Your task to perform on an android device: open app "Clock" (install if not already installed) Image 0: 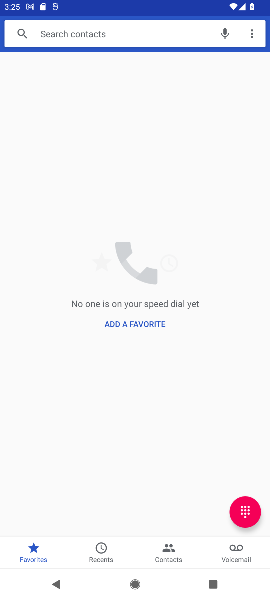
Step 0: press home button
Your task to perform on an android device: open app "Clock" (install if not already installed) Image 1: 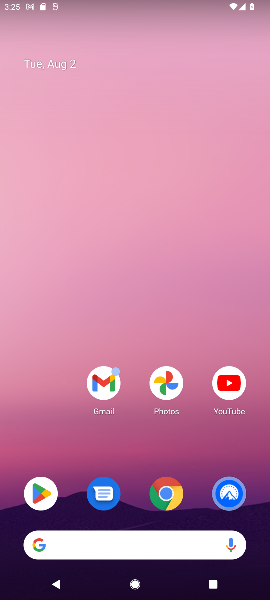
Step 1: click (40, 488)
Your task to perform on an android device: open app "Clock" (install if not already installed) Image 2: 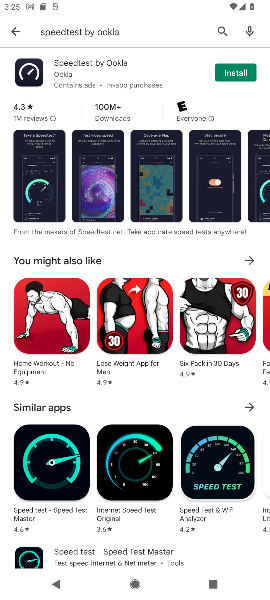
Step 2: click (223, 30)
Your task to perform on an android device: open app "Clock" (install if not already installed) Image 3: 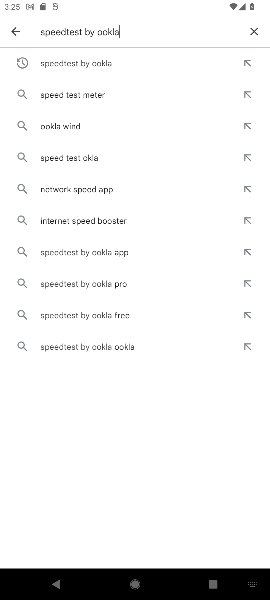
Step 3: click (257, 29)
Your task to perform on an android device: open app "Clock" (install if not already installed) Image 4: 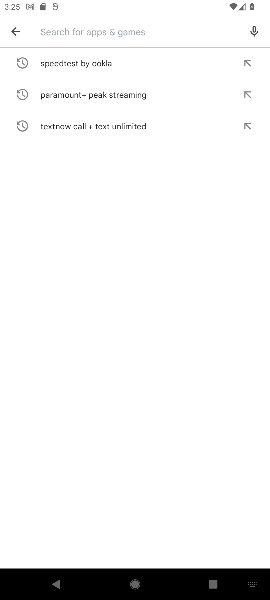
Step 4: type "clock"
Your task to perform on an android device: open app "Clock" (install if not already installed) Image 5: 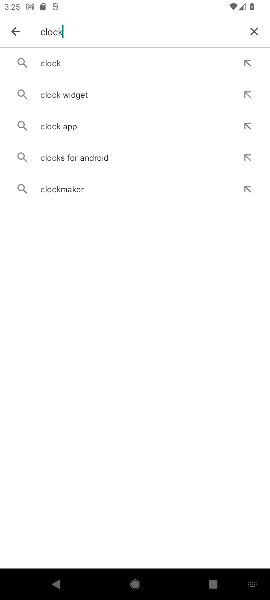
Step 5: click (54, 68)
Your task to perform on an android device: open app "Clock" (install if not already installed) Image 6: 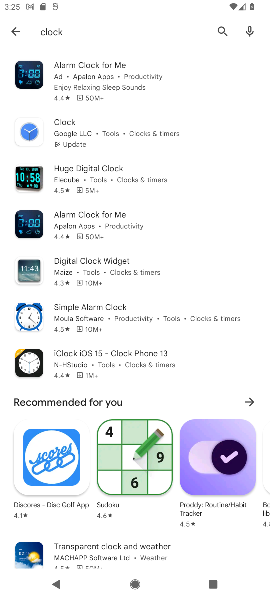
Step 6: click (53, 123)
Your task to perform on an android device: open app "Clock" (install if not already installed) Image 7: 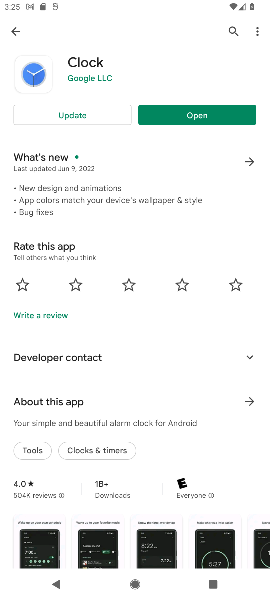
Step 7: click (186, 115)
Your task to perform on an android device: open app "Clock" (install if not already installed) Image 8: 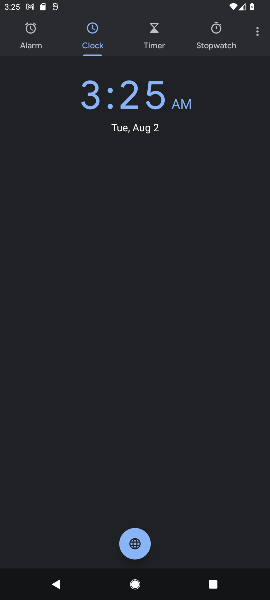
Step 8: task complete